Your task to perform on an android device: Open the Play Movies app and select the watchlist tab. Image 0: 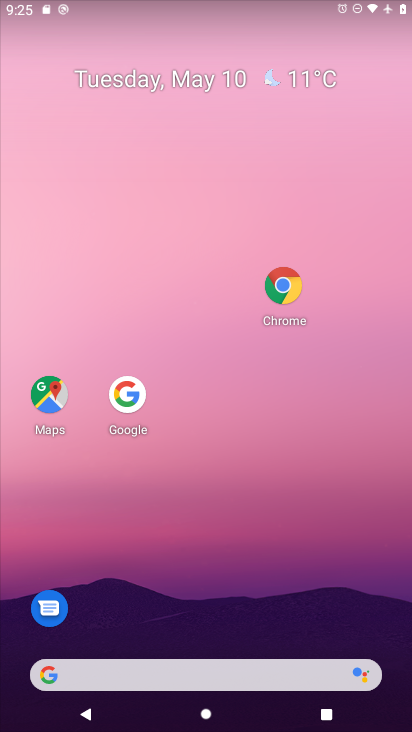
Step 0: drag from (145, 677) to (209, 266)
Your task to perform on an android device: Open the Play Movies app and select the watchlist tab. Image 1: 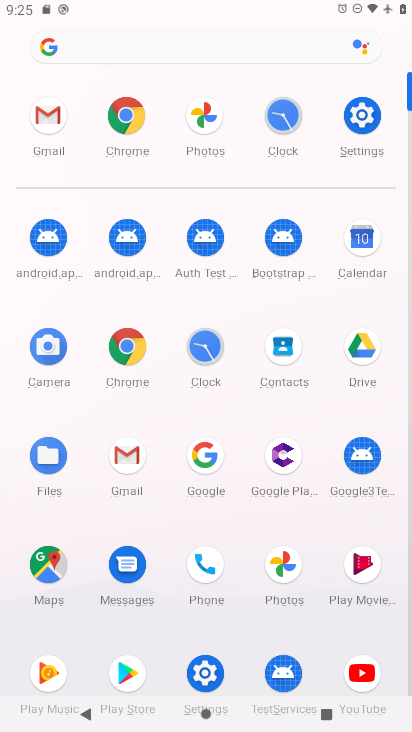
Step 1: click (358, 569)
Your task to perform on an android device: Open the Play Movies app and select the watchlist tab. Image 2: 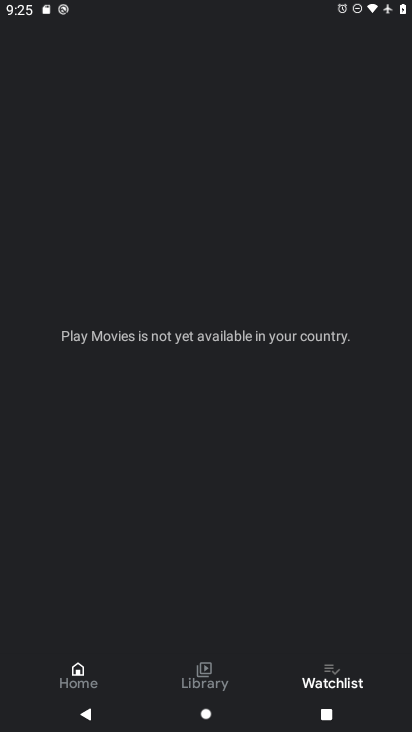
Step 2: click (344, 687)
Your task to perform on an android device: Open the Play Movies app and select the watchlist tab. Image 3: 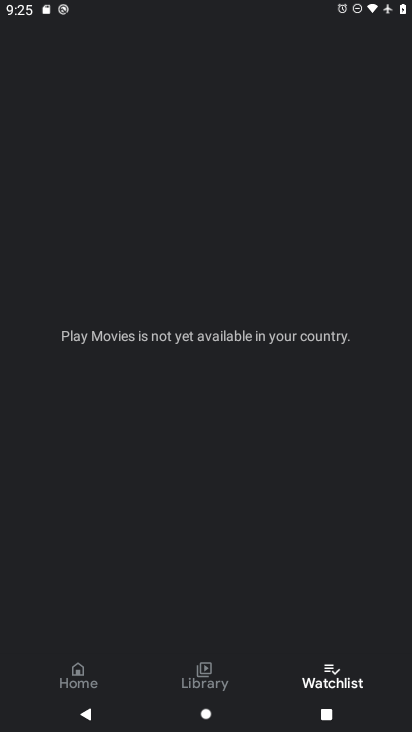
Step 3: task complete